Your task to perform on an android device: What is the news today? Image 0: 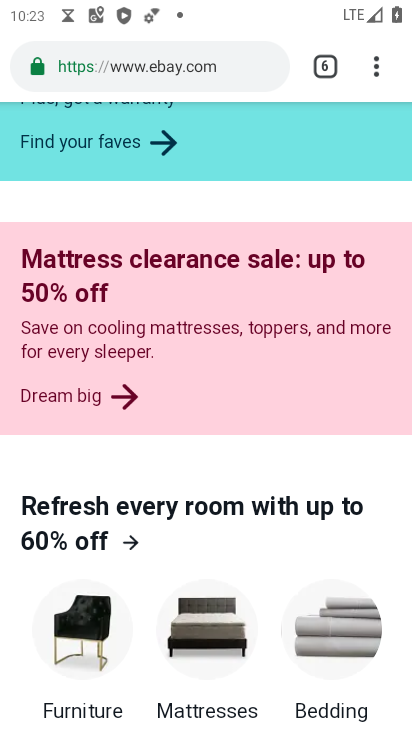
Step 0: press home button
Your task to perform on an android device: What is the news today? Image 1: 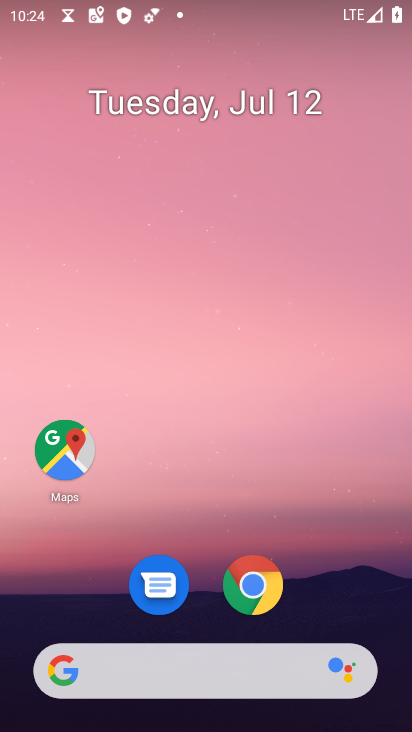
Step 1: click (192, 680)
Your task to perform on an android device: What is the news today? Image 2: 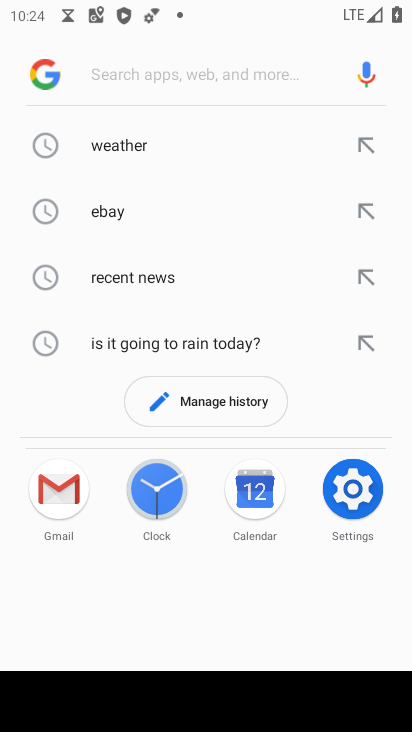
Step 2: click (169, 280)
Your task to perform on an android device: What is the news today? Image 3: 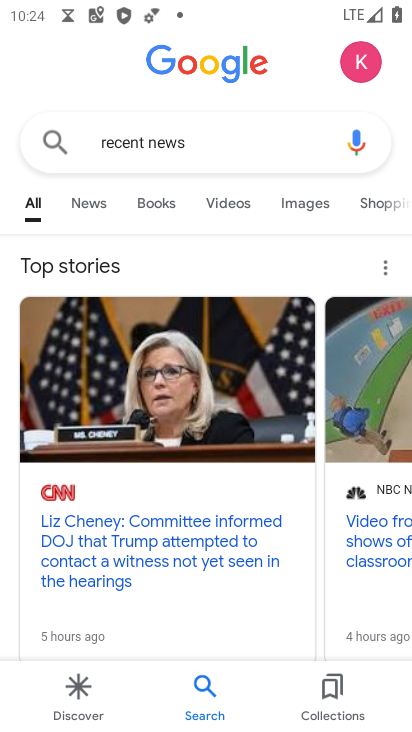
Step 3: click (94, 201)
Your task to perform on an android device: What is the news today? Image 4: 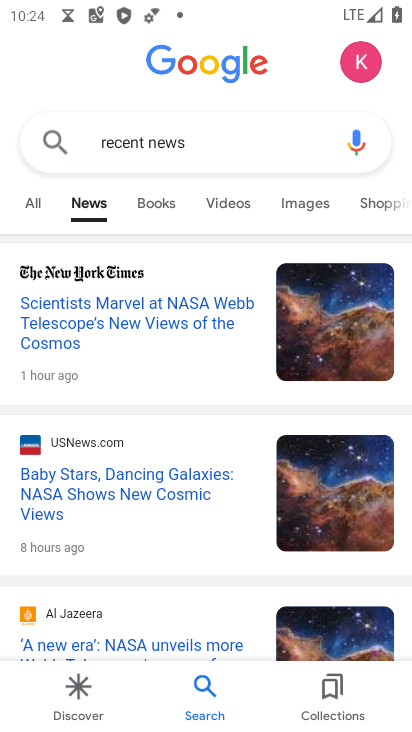
Step 4: task complete